Your task to perform on an android device: What's the news in Ecuador? Image 0: 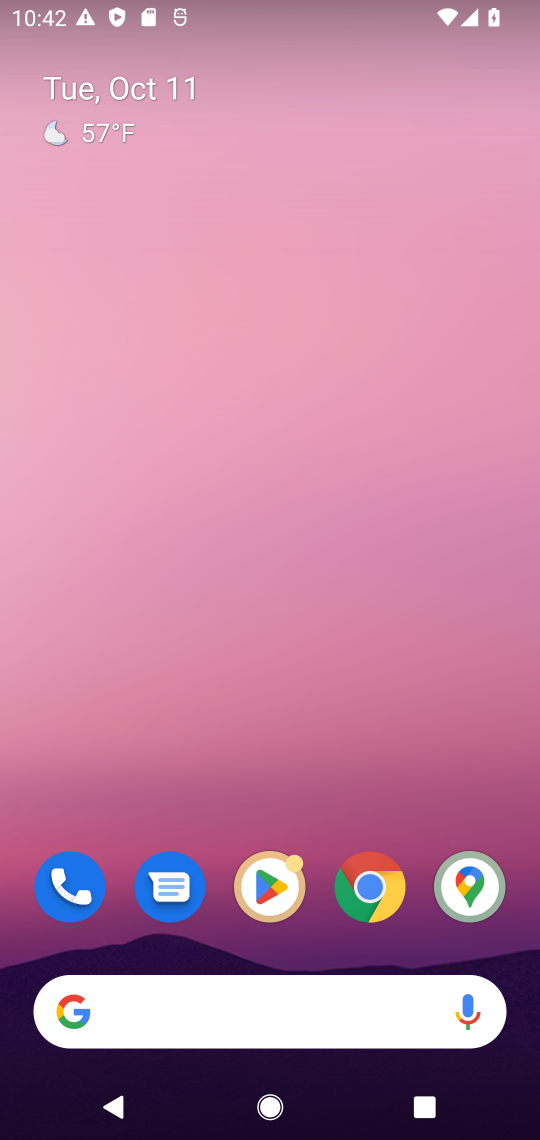
Step 0: press home button
Your task to perform on an android device: What's the news in Ecuador? Image 1: 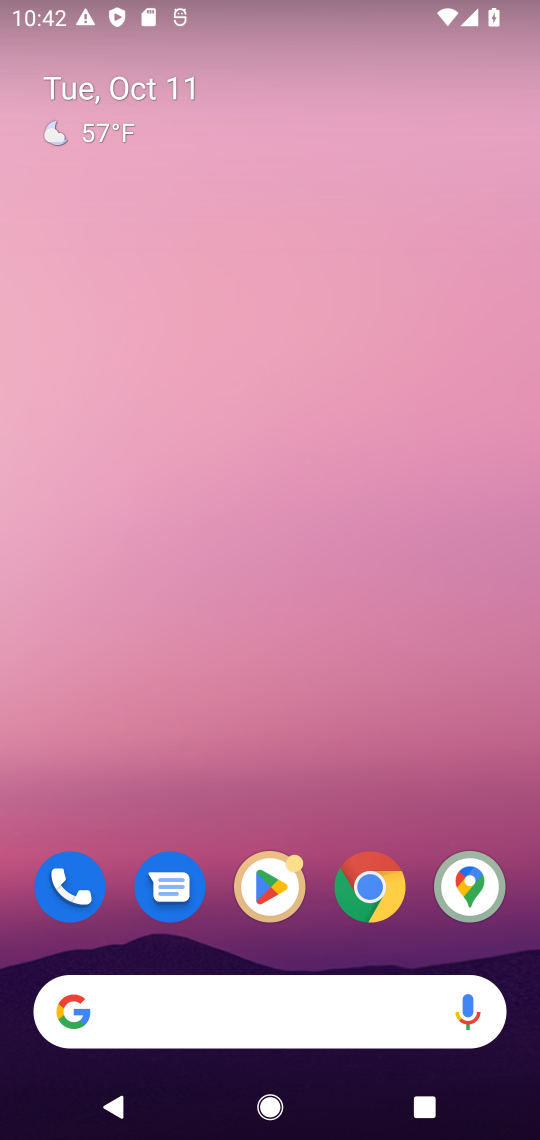
Step 1: click (192, 1029)
Your task to perform on an android device: What's the news in Ecuador? Image 2: 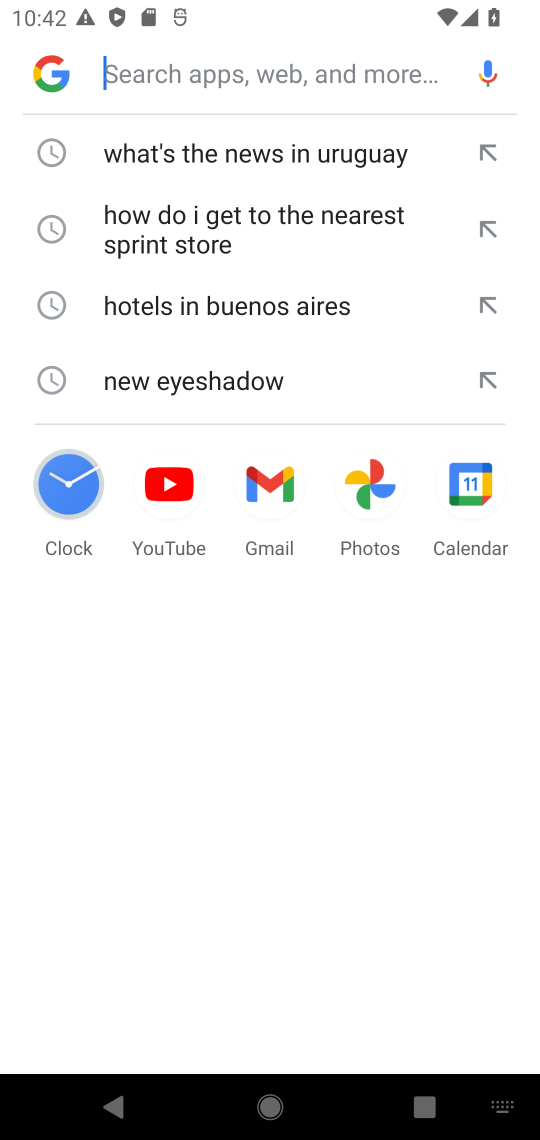
Step 2: type "What's the news in Ecuador"
Your task to perform on an android device: What's the news in Ecuador? Image 3: 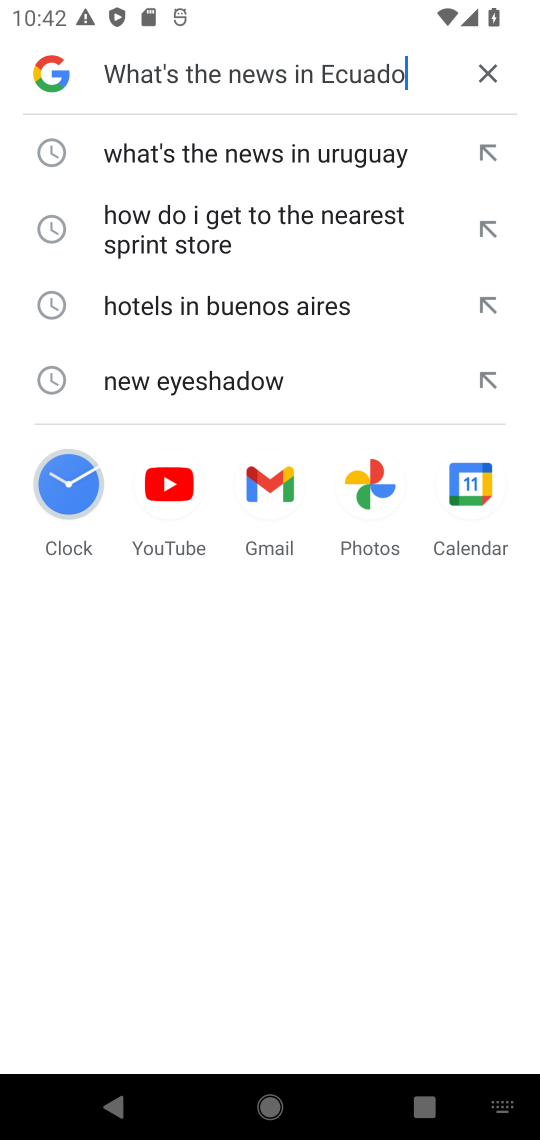
Step 3: press enter
Your task to perform on an android device: What's the news in Ecuador? Image 4: 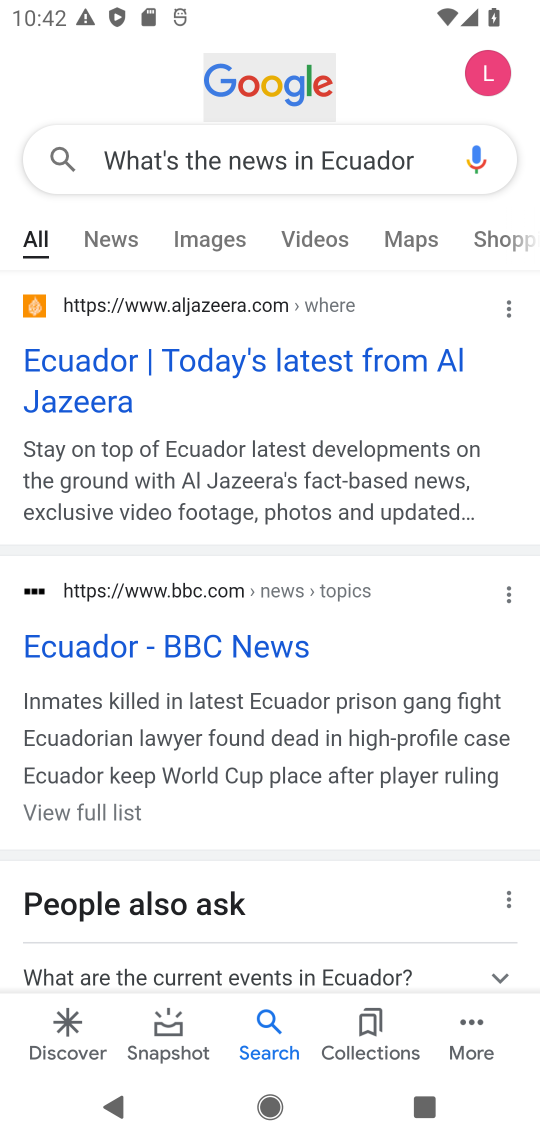
Step 4: click (252, 365)
Your task to perform on an android device: What's the news in Ecuador? Image 5: 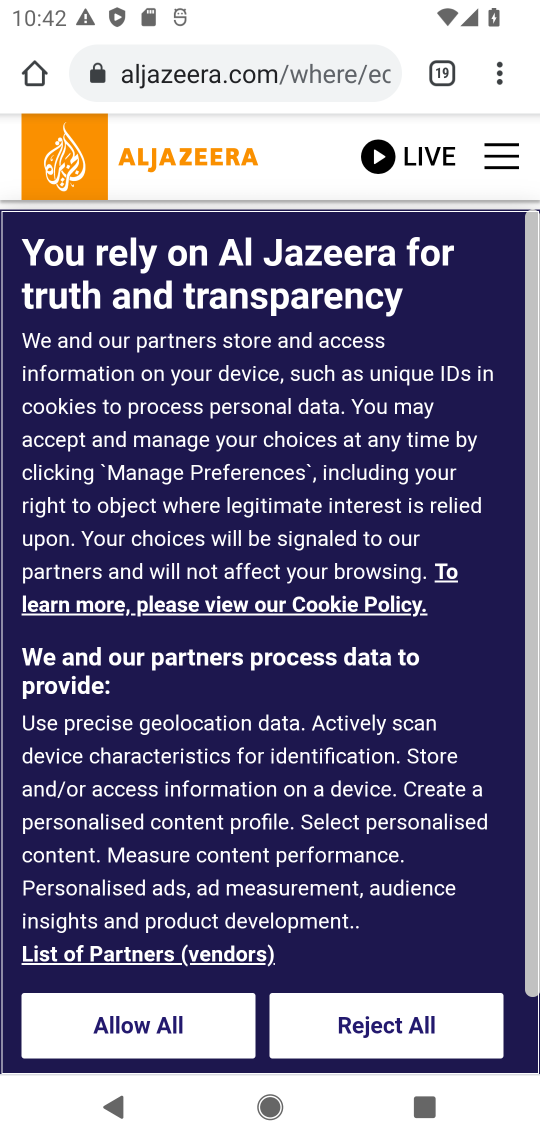
Step 5: click (209, 1022)
Your task to perform on an android device: What's the news in Ecuador? Image 6: 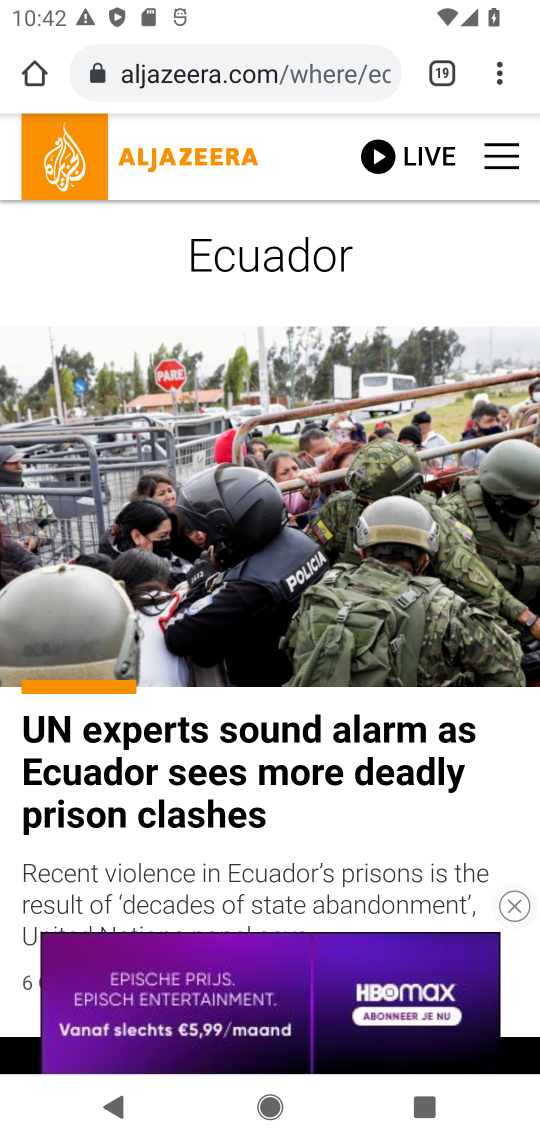
Step 6: task complete